Your task to perform on an android device: Open calendar and show me the third week of next month Image 0: 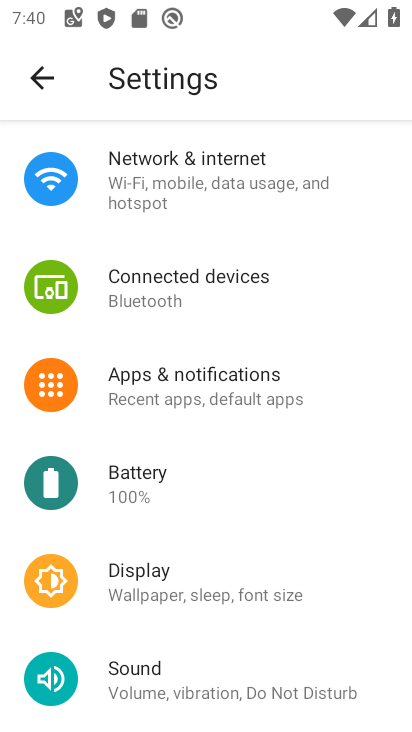
Step 0: press home button
Your task to perform on an android device: Open calendar and show me the third week of next month Image 1: 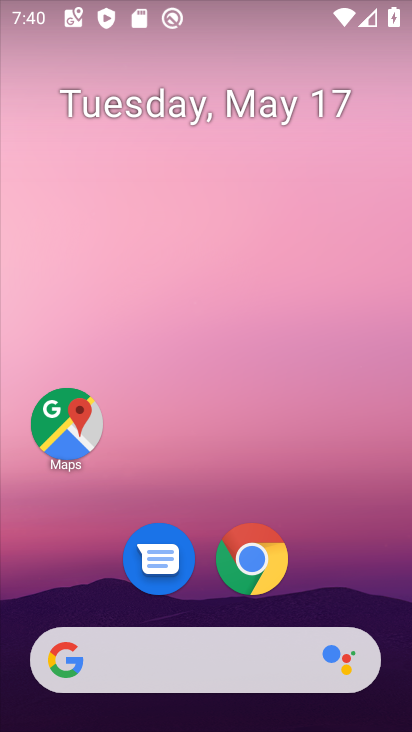
Step 1: drag from (208, 705) to (39, 0)
Your task to perform on an android device: Open calendar and show me the third week of next month Image 2: 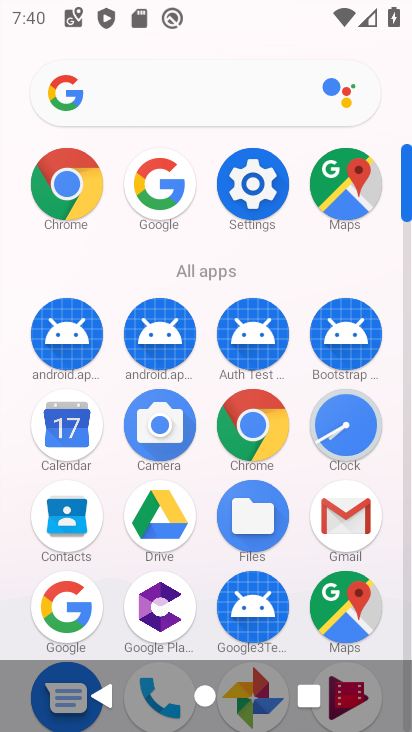
Step 2: click (59, 432)
Your task to perform on an android device: Open calendar and show me the third week of next month Image 3: 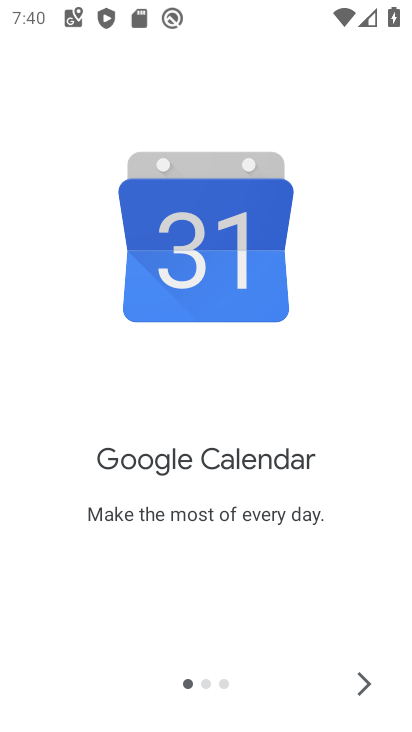
Step 3: click (356, 683)
Your task to perform on an android device: Open calendar and show me the third week of next month Image 4: 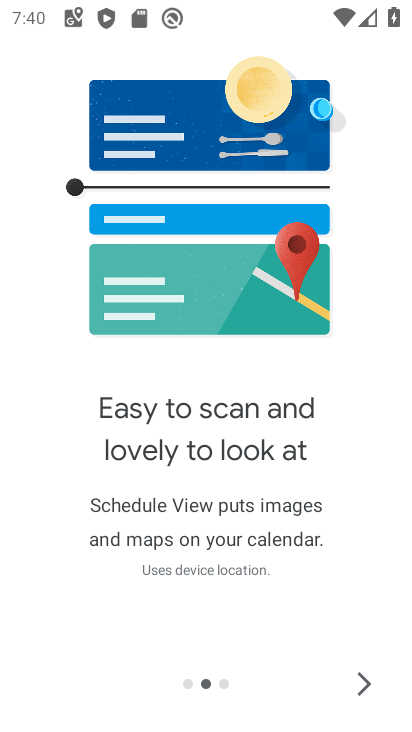
Step 4: click (365, 688)
Your task to perform on an android device: Open calendar and show me the third week of next month Image 5: 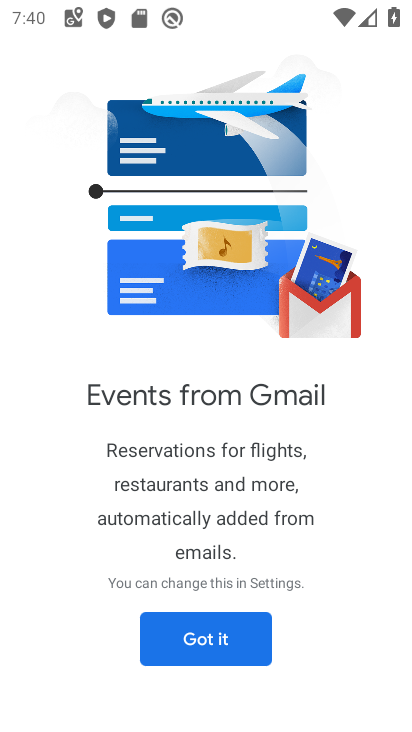
Step 5: click (202, 645)
Your task to perform on an android device: Open calendar and show me the third week of next month Image 6: 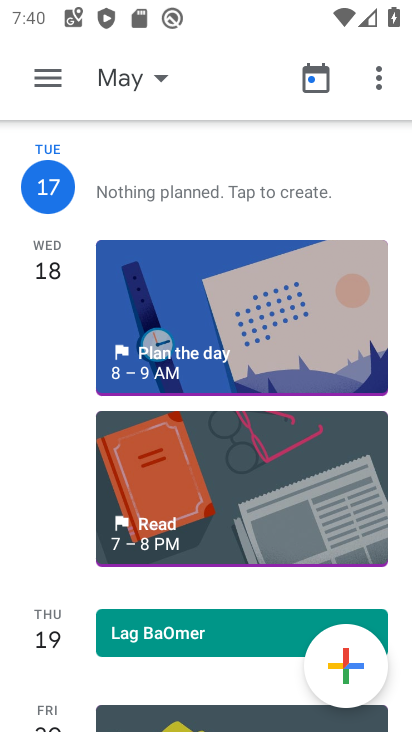
Step 6: click (118, 81)
Your task to perform on an android device: Open calendar and show me the third week of next month Image 7: 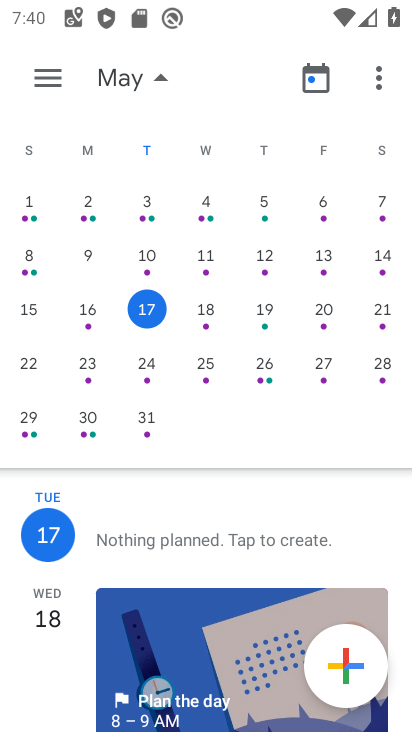
Step 7: drag from (339, 300) to (6, 300)
Your task to perform on an android device: Open calendar and show me the third week of next month Image 8: 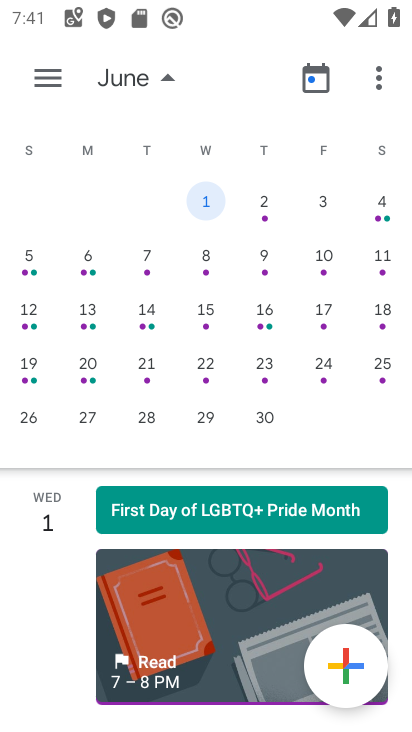
Step 8: click (24, 315)
Your task to perform on an android device: Open calendar and show me the third week of next month Image 9: 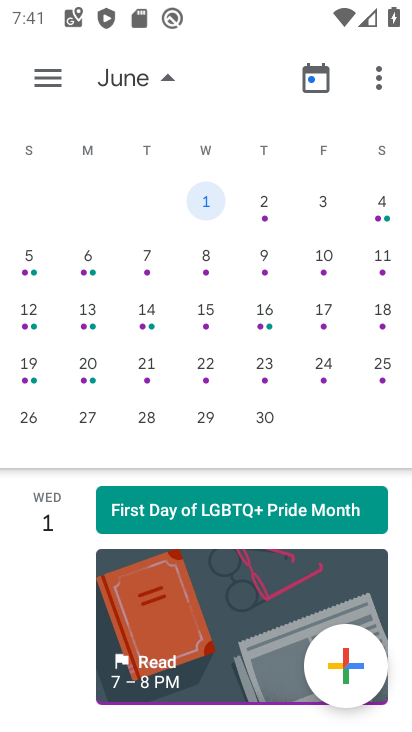
Step 9: click (28, 310)
Your task to perform on an android device: Open calendar and show me the third week of next month Image 10: 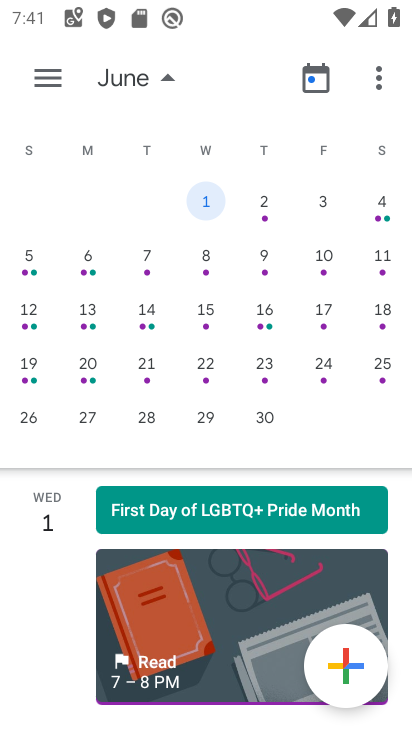
Step 10: click (28, 310)
Your task to perform on an android device: Open calendar and show me the third week of next month Image 11: 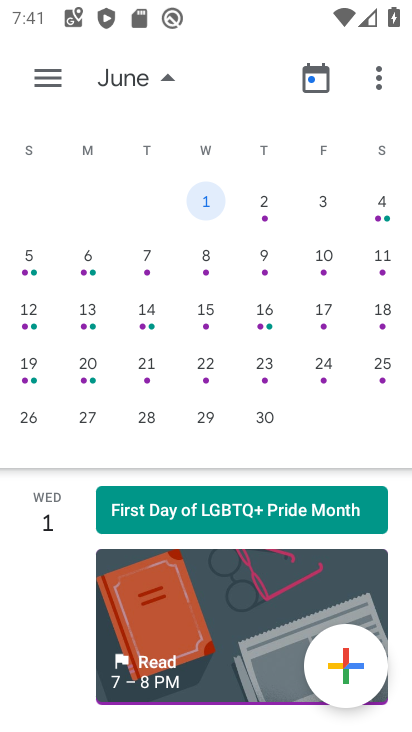
Step 11: click (32, 313)
Your task to perform on an android device: Open calendar and show me the third week of next month Image 12: 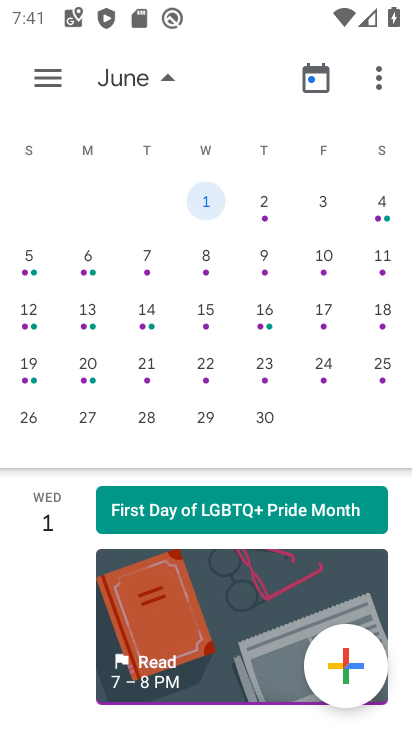
Step 12: click (28, 315)
Your task to perform on an android device: Open calendar and show me the third week of next month Image 13: 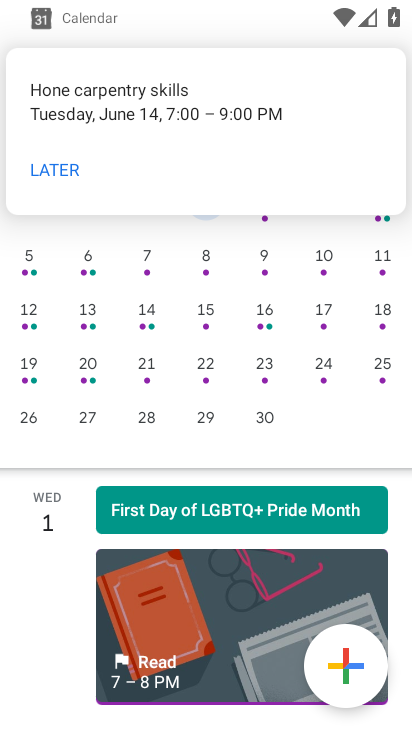
Step 13: click (35, 310)
Your task to perform on an android device: Open calendar and show me the third week of next month Image 14: 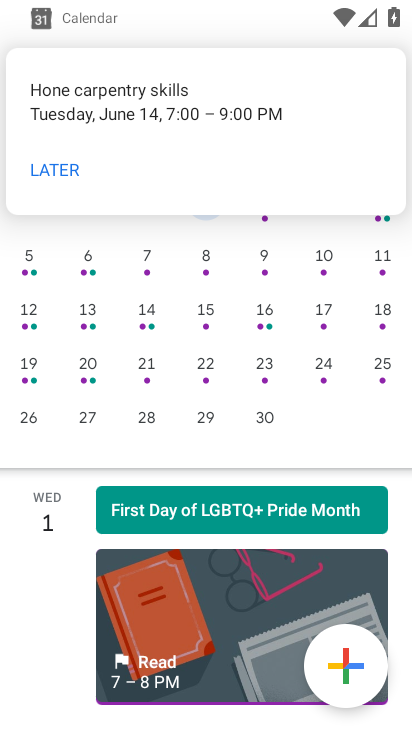
Step 14: click (35, 310)
Your task to perform on an android device: Open calendar and show me the third week of next month Image 15: 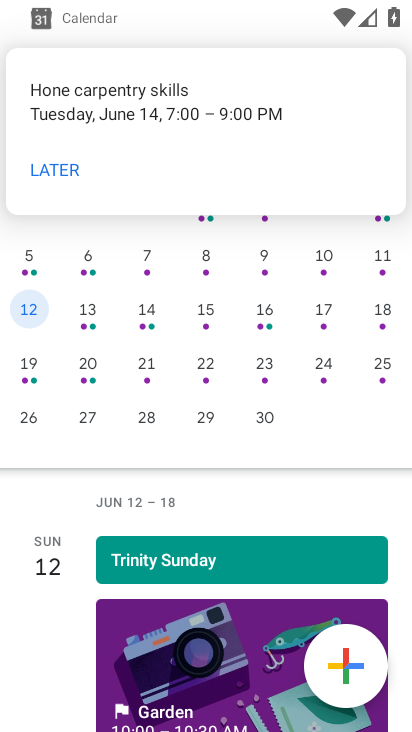
Step 15: task complete